Your task to perform on an android device: Open CNN.com Image 0: 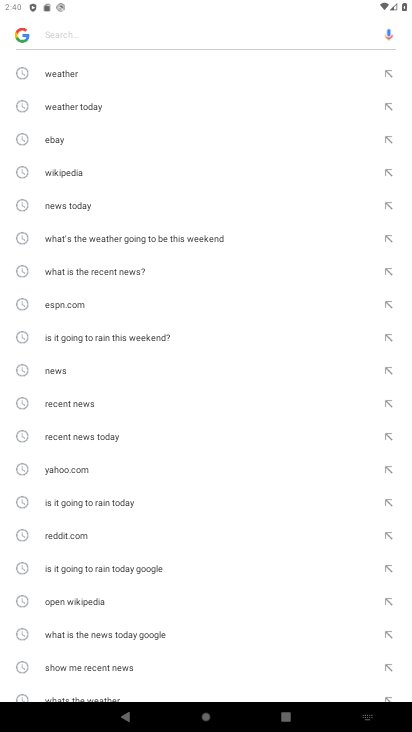
Step 0: click (88, 30)
Your task to perform on an android device: Open CNN.com Image 1: 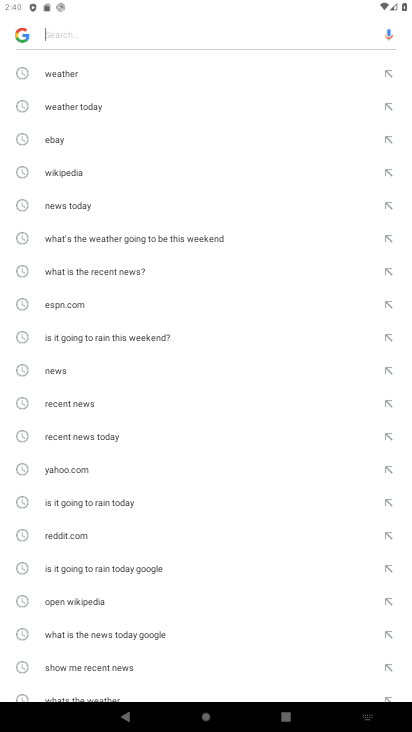
Step 1: type "cnn.com"
Your task to perform on an android device: Open CNN.com Image 2: 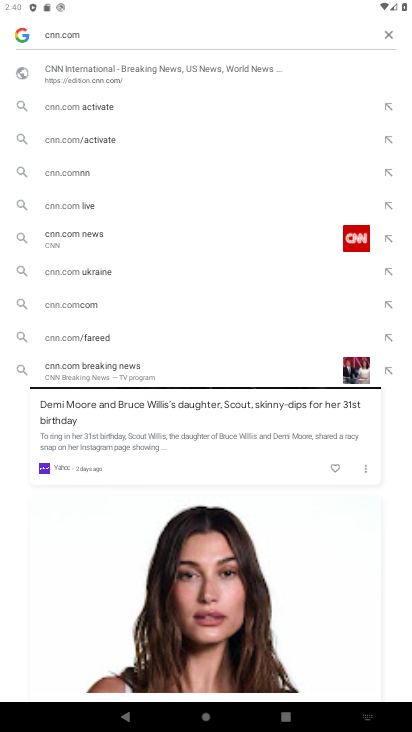
Step 2: click (63, 77)
Your task to perform on an android device: Open CNN.com Image 3: 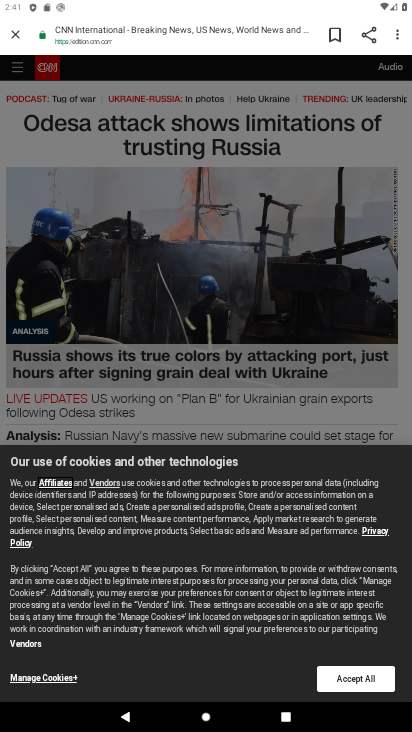
Step 3: task complete